Your task to perform on an android device: Open Google Chrome and click the shortcut for Amazon.com Image 0: 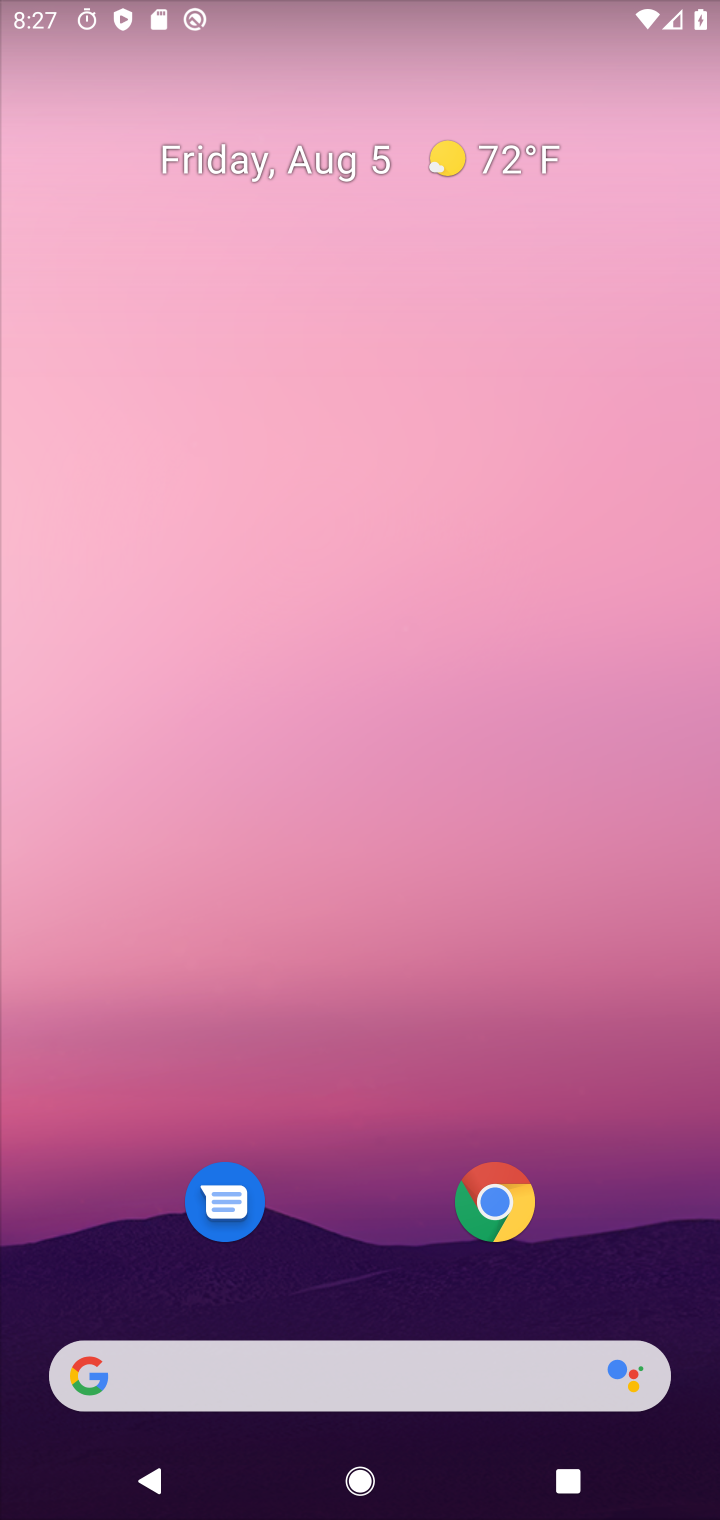
Step 0: click (488, 1218)
Your task to perform on an android device: Open Google Chrome and click the shortcut for Amazon.com Image 1: 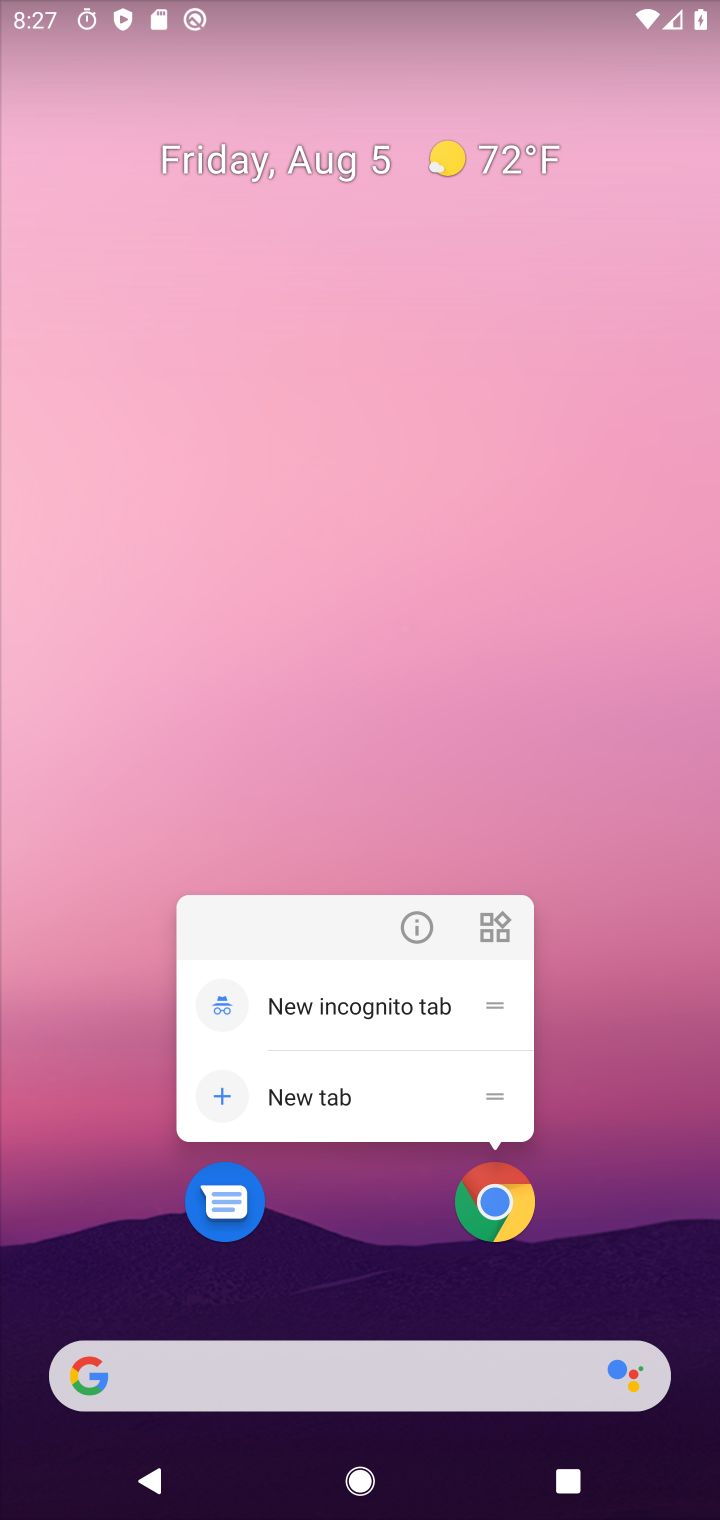
Step 1: click (486, 1217)
Your task to perform on an android device: Open Google Chrome and click the shortcut for Amazon.com Image 2: 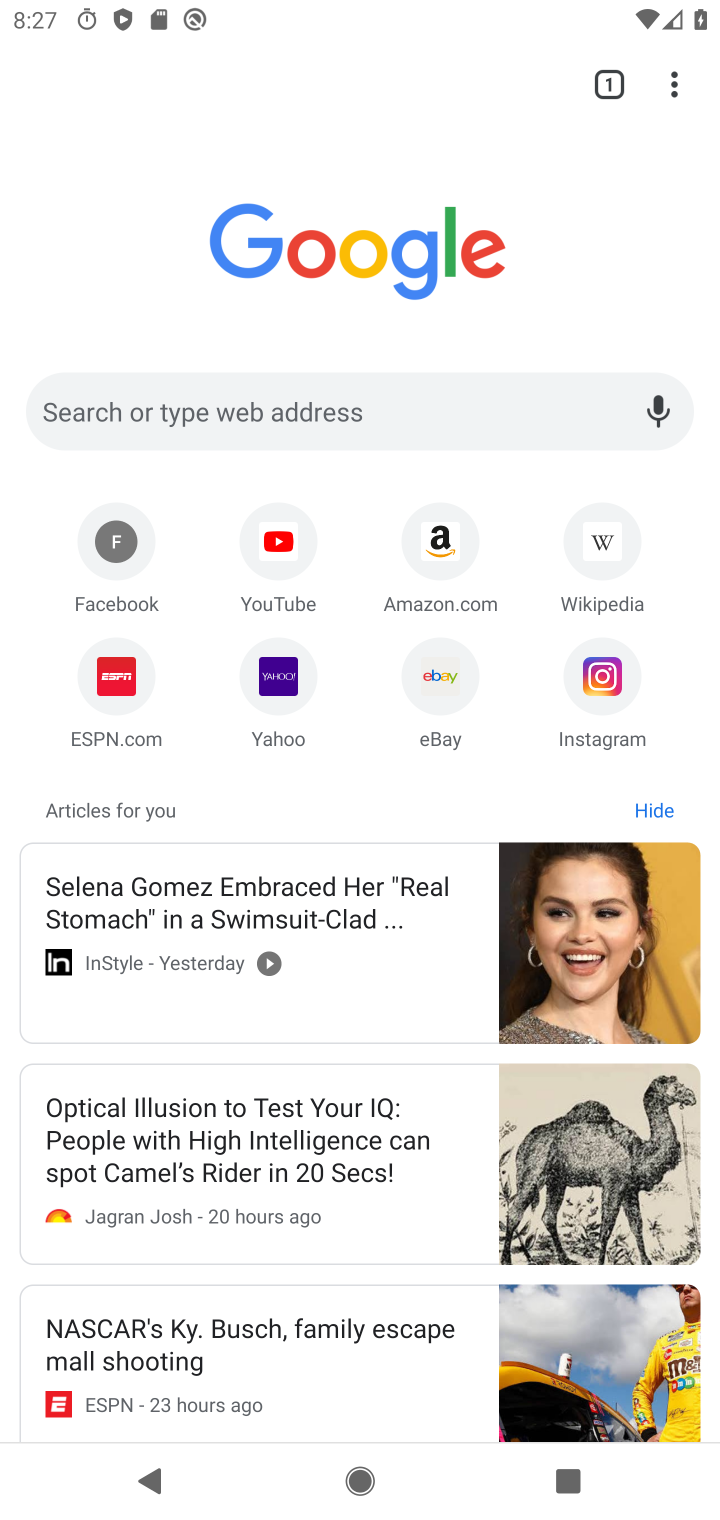
Step 2: click (451, 529)
Your task to perform on an android device: Open Google Chrome and click the shortcut for Amazon.com Image 3: 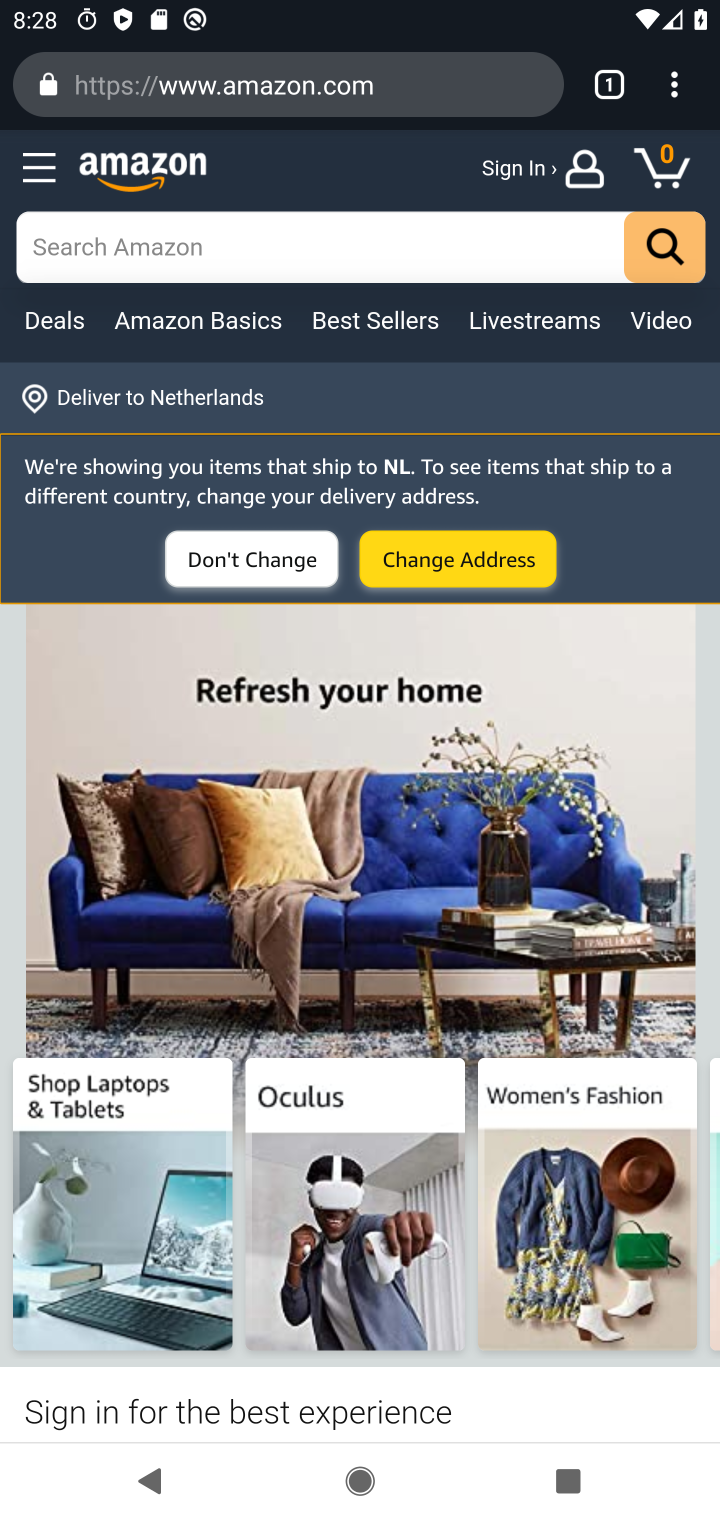
Step 3: task complete